Your task to perform on an android device: Open eBay Image 0: 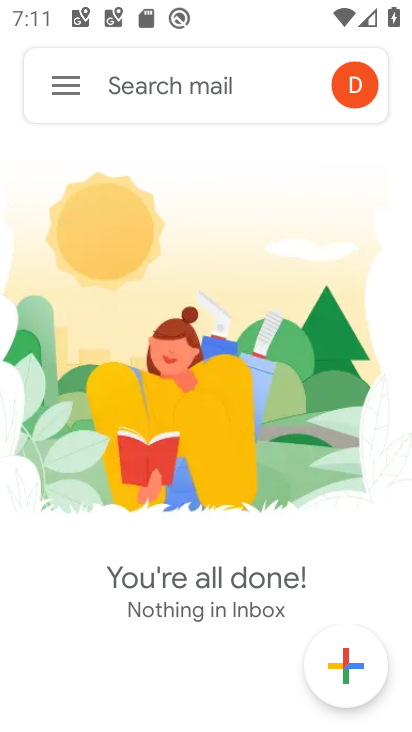
Step 0: press home button
Your task to perform on an android device: Open eBay Image 1: 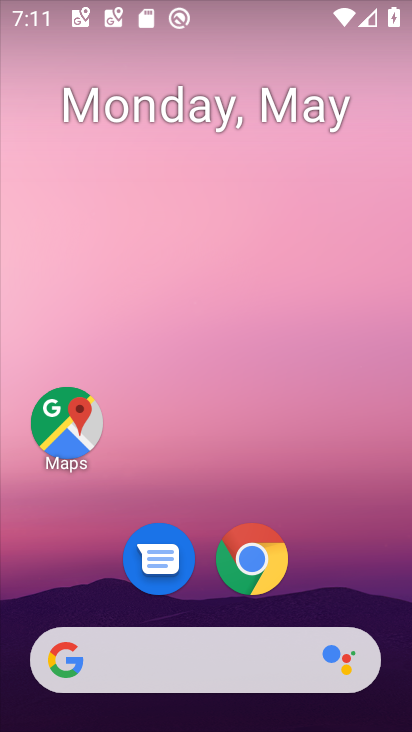
Step 1: drag from (363, 604) to (325, 0)
Your task to perform on an android device: Open eBay Image 2: 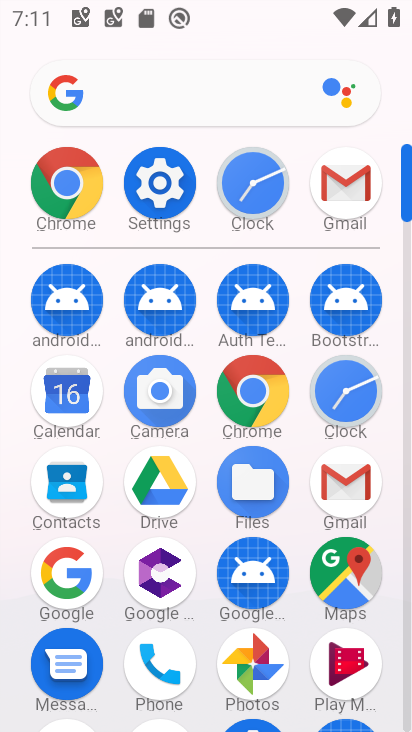
Step 2: click (63, 173)
Your task to perform on an android device: Open eBay Image 3: 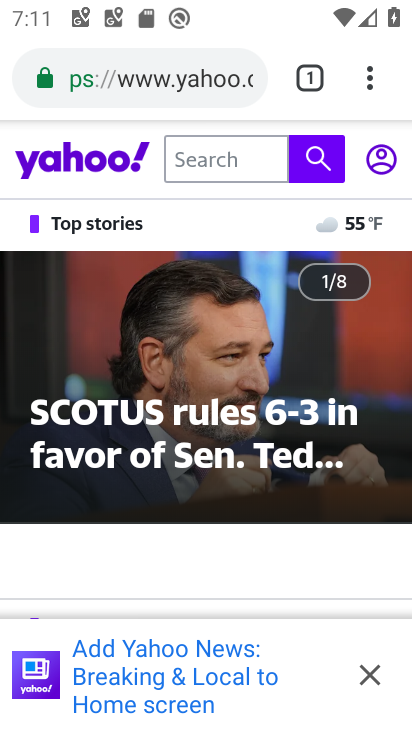
Step 3: press back button
Your task to perform on an android device: Open eBay Image 4: 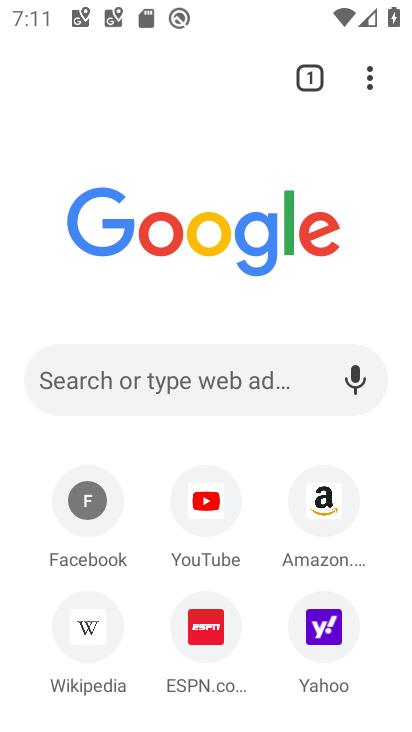
Step 4: click (143, 374)
Your task to perform on an android device: Open eBay Image 5: 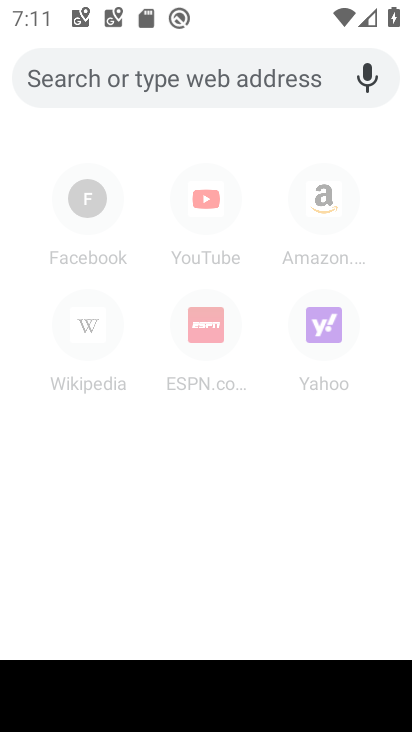
Step 5: type "ebay"
Your task to perform on an android device: Open eBay Image 6: 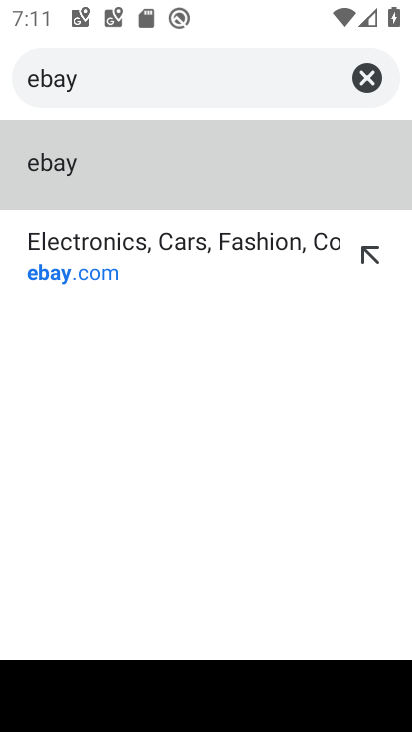
Step 6: click (203, 155)
Your task to perform on an android device: Open eBay Image 7: 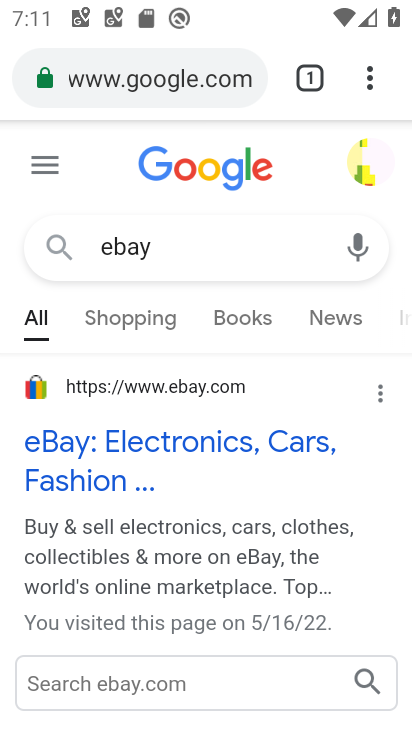
Step 7: task complete